Your task to perform on an android device: Open my contact list Image 0: 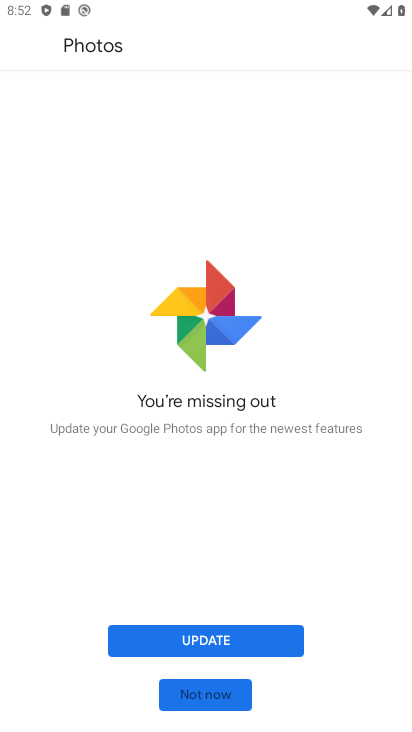
Step 0: press home button
Your task to perform on an android device: Open my contact list Image 1: 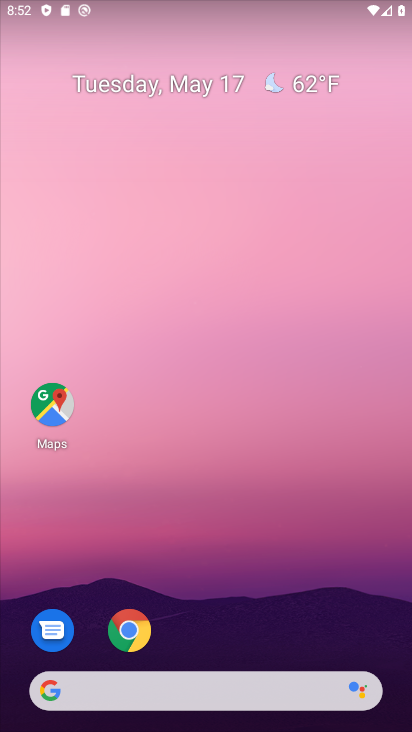
Step 1: drag from (197, 626) to (182, 252)
Your task to perform on an android device: Open my contact list Image 2: 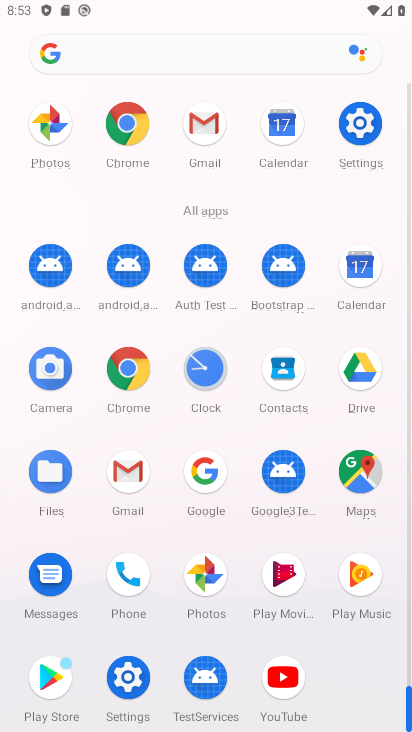
Step 2: click (285, 386)
Your task to perform on an android device: Open my contact list Image 3: 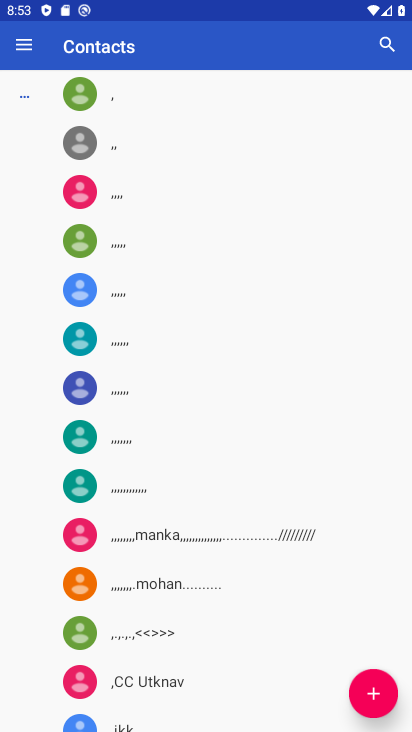
Step 3: task complete